Your task to perform on an android device: set the stopwatch Image 0: 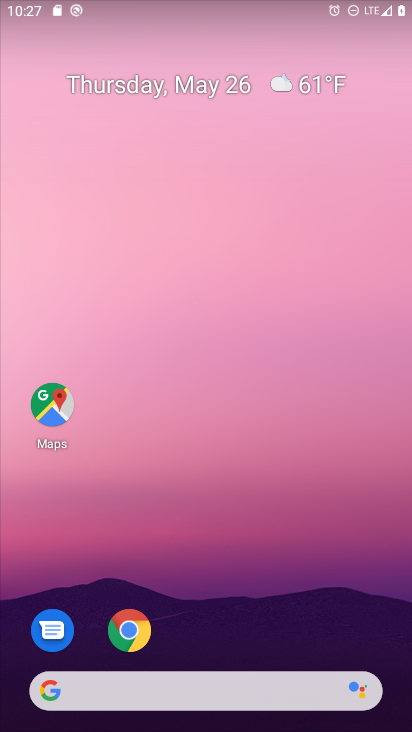
Step 0: drag from (223, 644) to (129, 27)
Your task to perform on an android device: set the stopwatch Image 1: 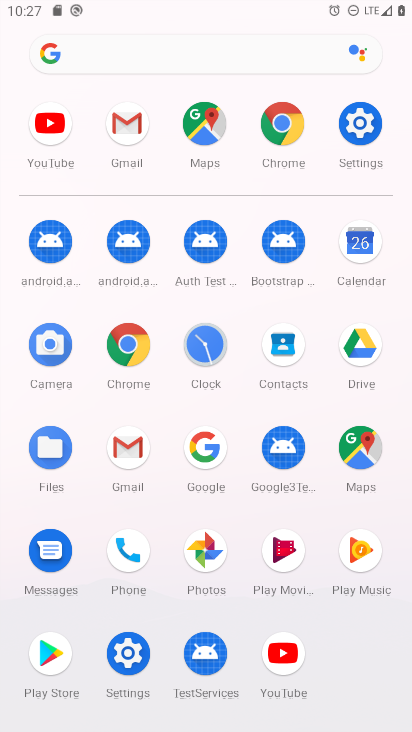
Step 1: click (199, 348)
Your task to perform on an android device: set the stopwatch Image 2: 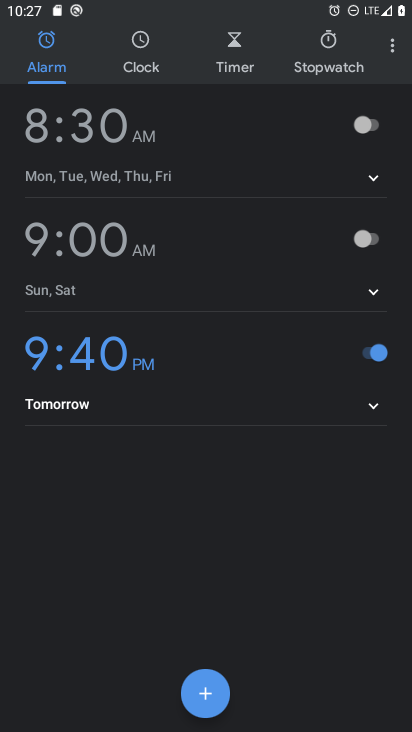
Step 2: click (354, 56)
Your task to perform on an android device: set the stopwatch Image 3: 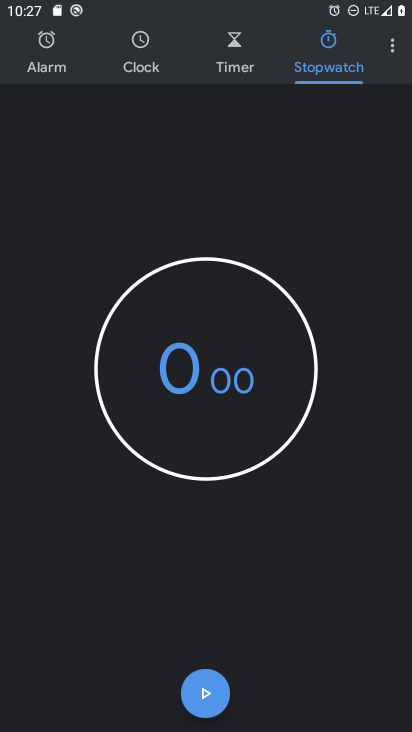
Step 3: task complete